Your task to perform on an android device: Toggle the flashlight Image 0: 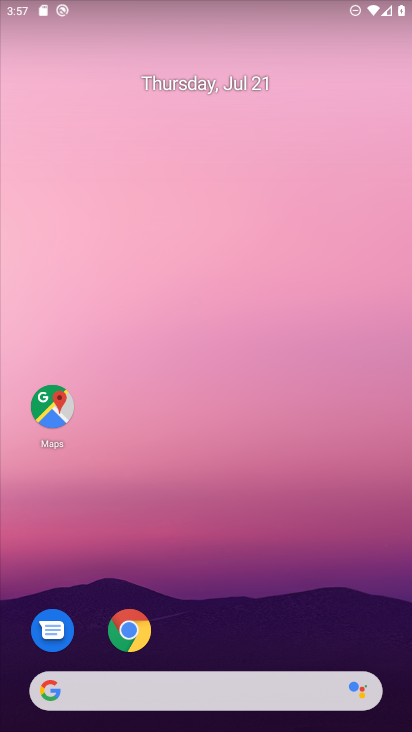
Step 0: drag from (245, 663) to (194, 114)
Your task to perform on an android device: Toggle the flashlight Image 1: 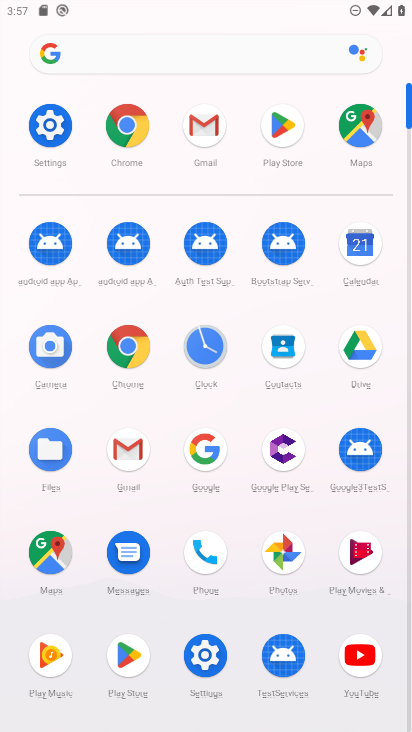
Step 1: click (198, 659)
Your task to perform on an android device: Toggle the flashlight Image 2: 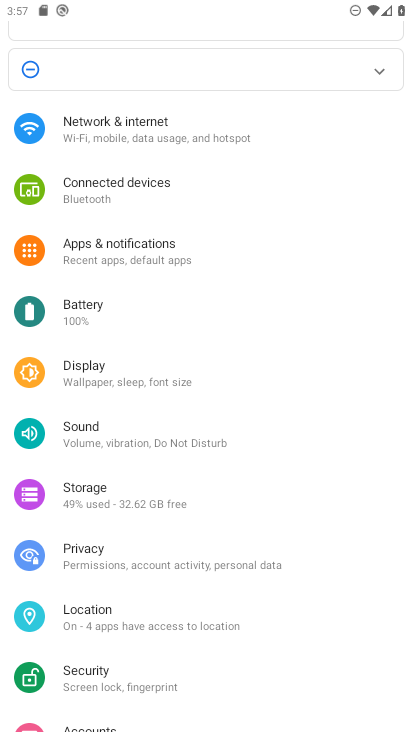
Step 2: task complete